Your task to perform on an android device: toggle sleep mode Image 0: 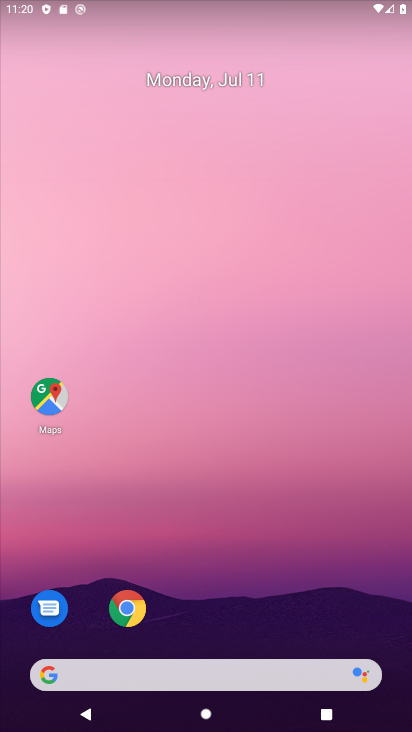
Step 0: drag from (218, 624) to (191, 115)
Your task to perform on an android device: toggle sleep mode Image 1: 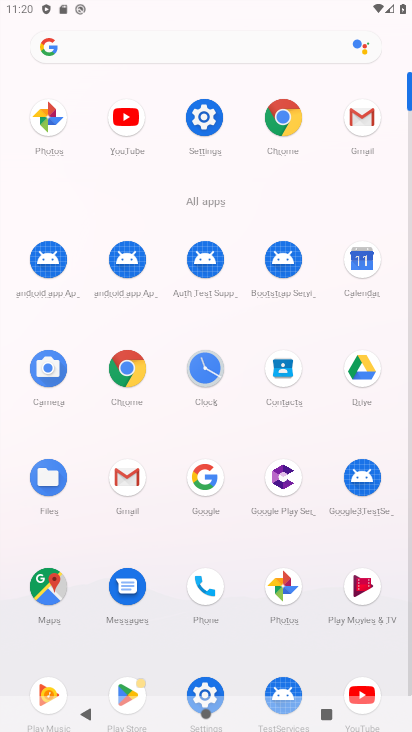
Step 1: click (209, 123)
Your task to perform on an android device: toggle sleep mode Image 2: 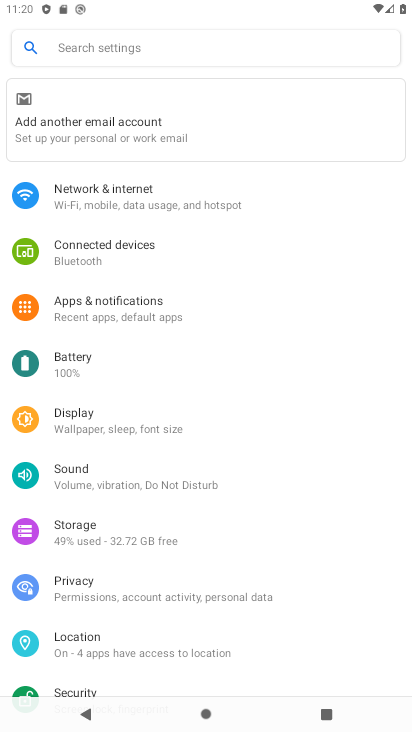
Step 2: task complete